Your task to perform on an android device: move an email to a new category in the gmail app Image 0: 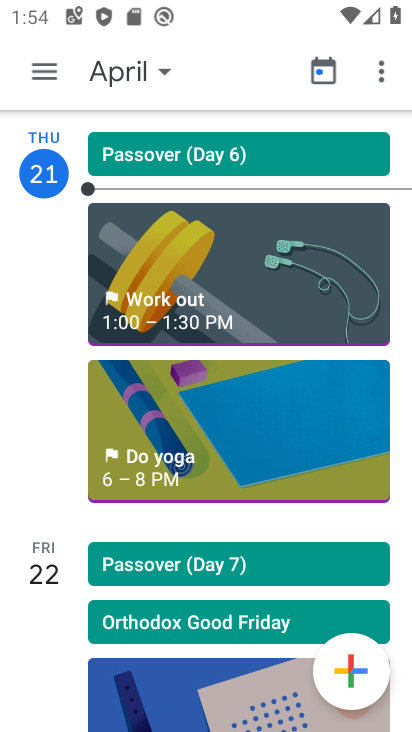
Step 0: press home button
Your task to perform on an android device: move an email to a new category in the gmail app Image 1: 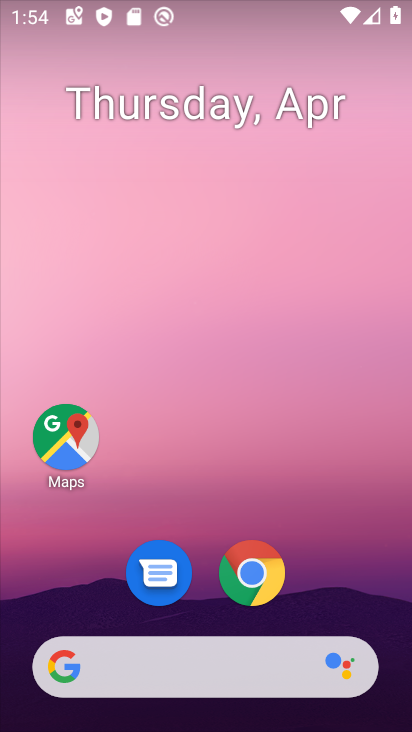
Step 1: drag from (342, 603) to (253, 36)
Your task to perform on an android device: move an email to a new category in the gmail app Image 2: 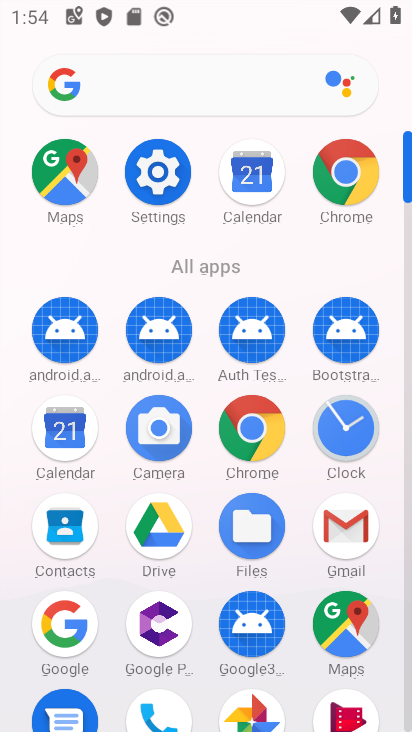
Step 2: click (341, 521)
Your task to perform on an android device: move an email to a new category in the gmail app Image 3: 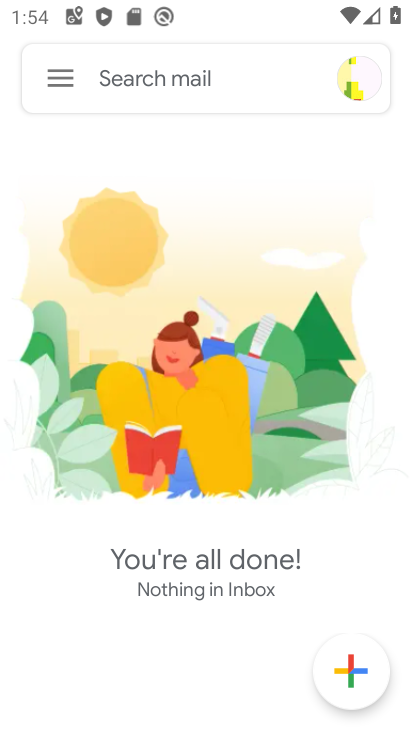
Step 3: task complete